Your task to perform on an android device: Open network settings Image 0: 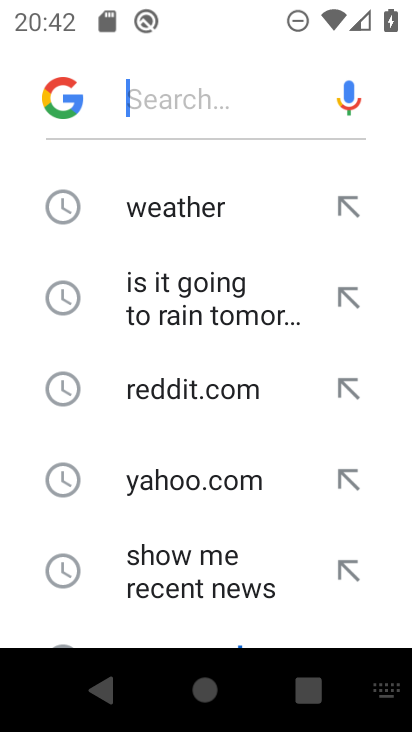
Step 0: press home button
Your task to perform on an android device: Open network settings Image 1: 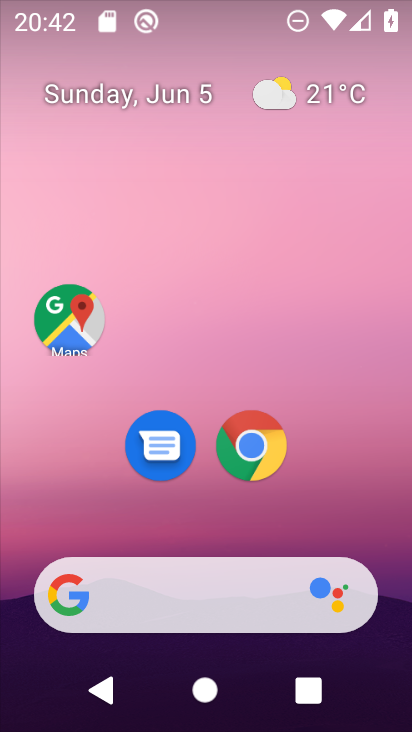
Step 1: drag from (350, 502) to (369, 154)
Your task to perform on an android device: Open network settings Image 2: 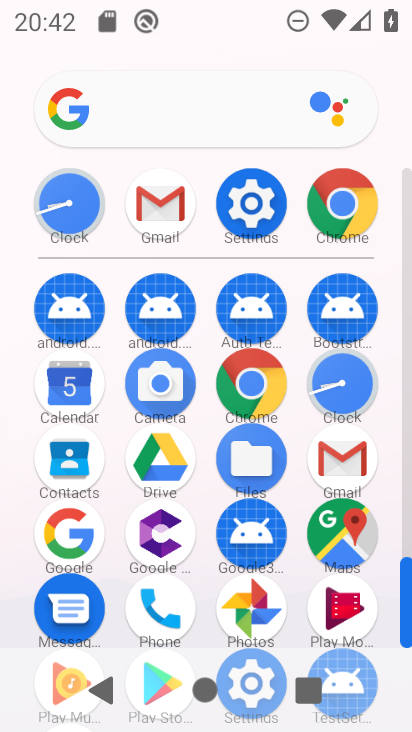
Step 2: click (266, 195)
Your task to perform on an android device: Open network settings Image 3: 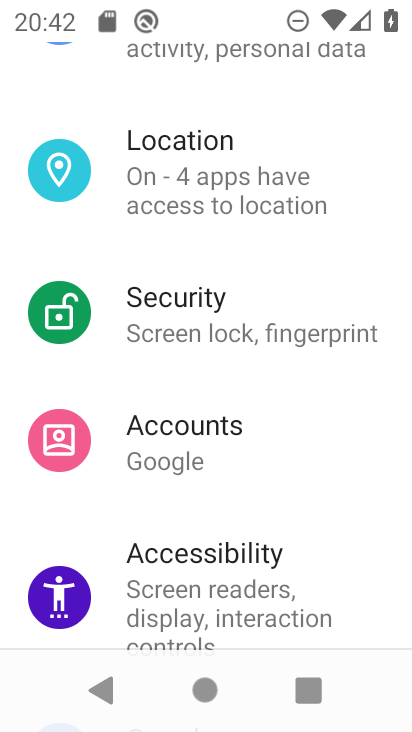
Step 3: drag from (332, 107) to (382, 389)
Your task to perform on an android device: Open network settings Image 4: 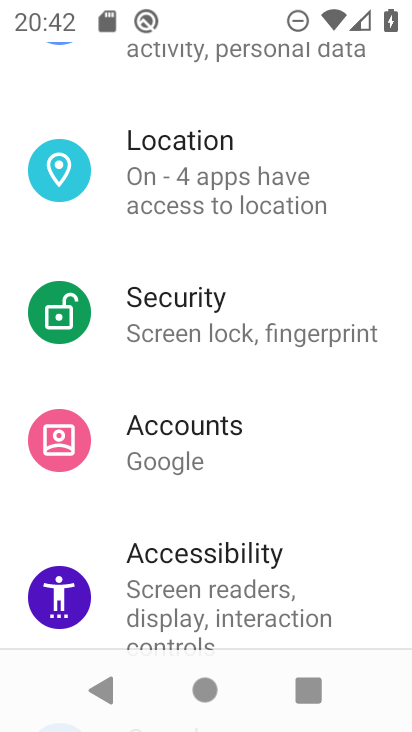
Step 4: drag from (104, 264) to (103, 627)
Your task to perform on an android device: Open network settings Image 5: 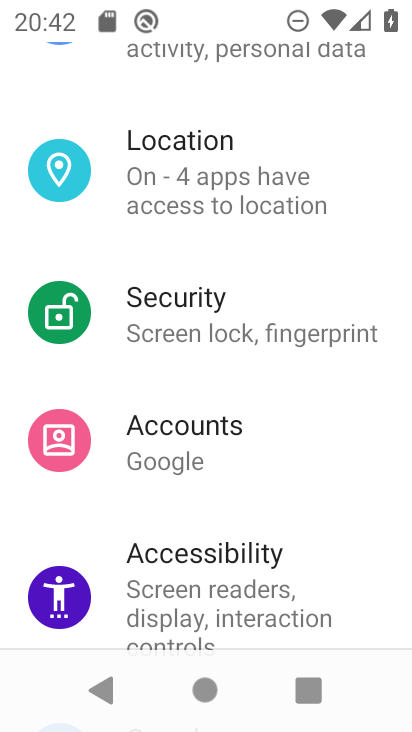
Step 5: drag from (28, 100) to (66, 546)
Your task to perform on an android device: Open network settings Image 6: 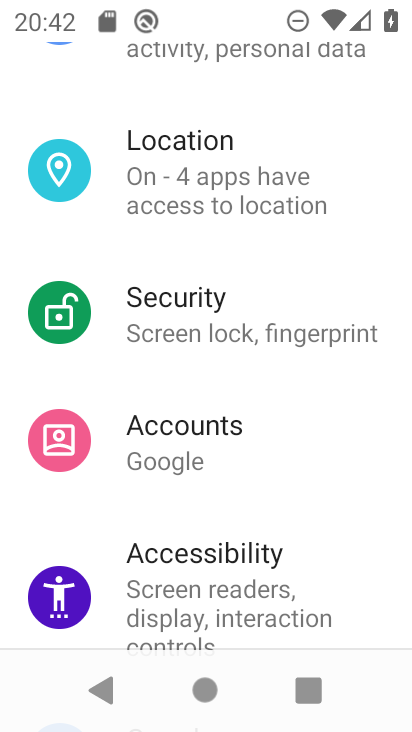
Step 6: drag from (355, 248) to (360, 668)
Your task to perform on an android device: Open network settings Image 7: 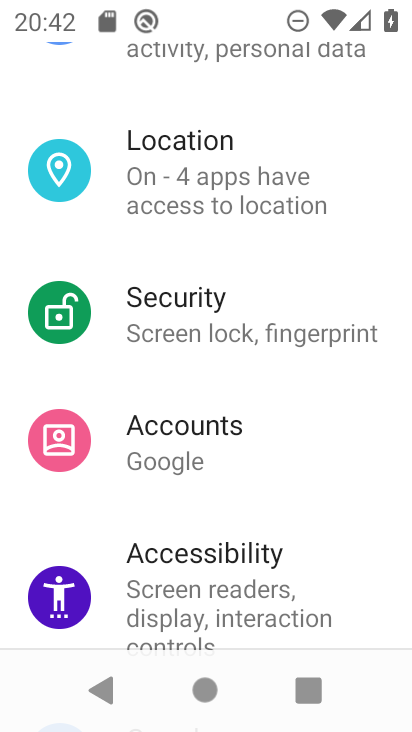
Step 7: drag from (337, 506) to (368, 140)
Your task to perform on an android device: Open network settings Image 8: 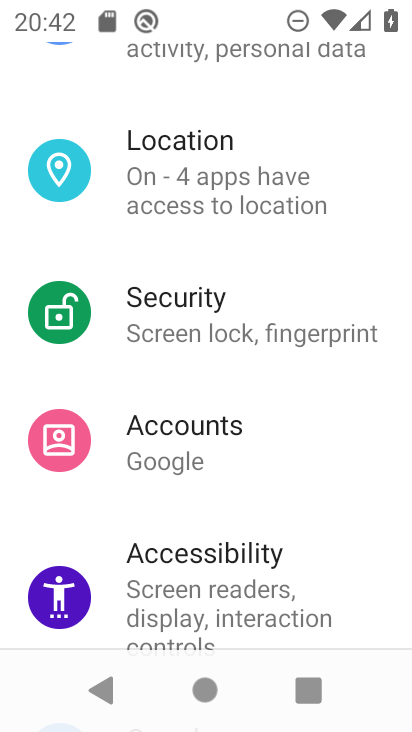
Step 8: drag from (52, 87) to (154, 730)
Your task to perform on an android device: Open network settings Image 9: 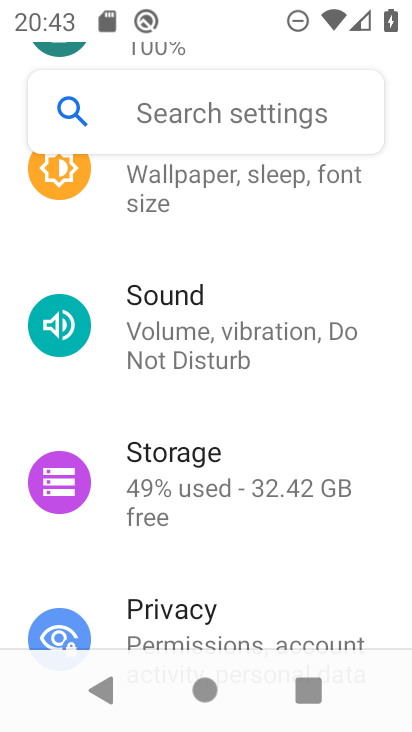
Step 9: drag from (21, 231) to (39, 726)
Your task to perform on an android device: Open network settings Image 10: 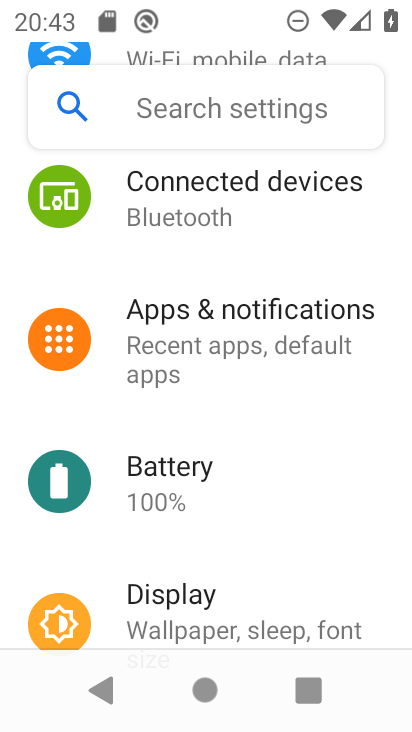
Step 10: drag from (32, 261) to (90, 537)
Your task to perform on an android device: Open network settings Image 11: 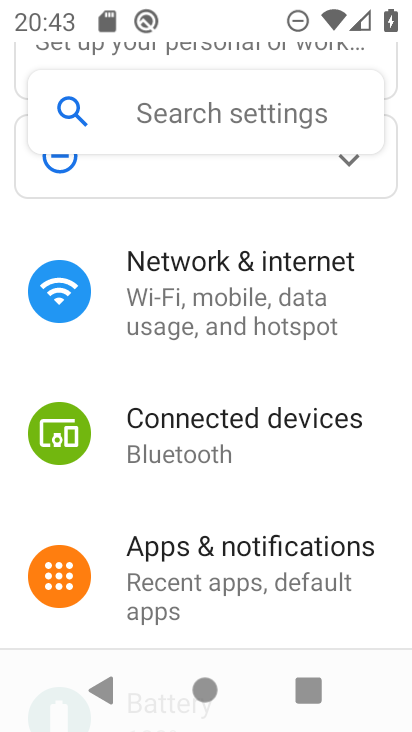
Step 11: click (165, 276)
Your task to perform on an android device: Open network settings Image 12: 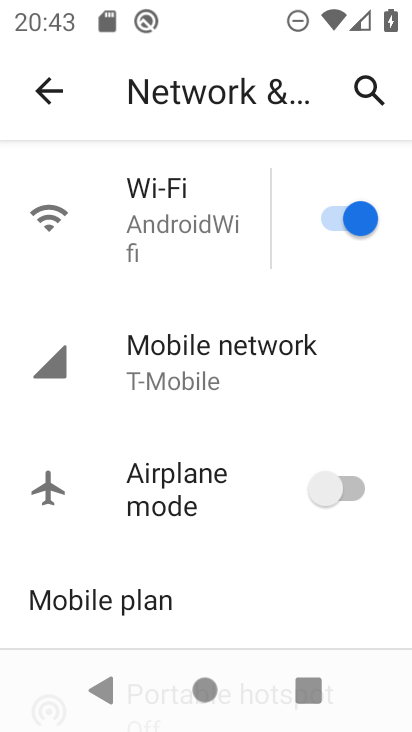
Step 12: task complete